Your task to perform on an android device: empty trash in google photos Image 0: 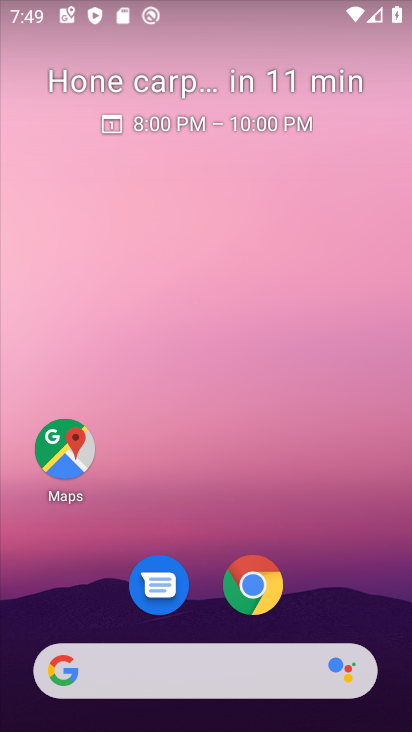
Step 0: drag from (319, 526) to (260, 1)
Your task to perform on an android device: empty trash in google photos Image 1: 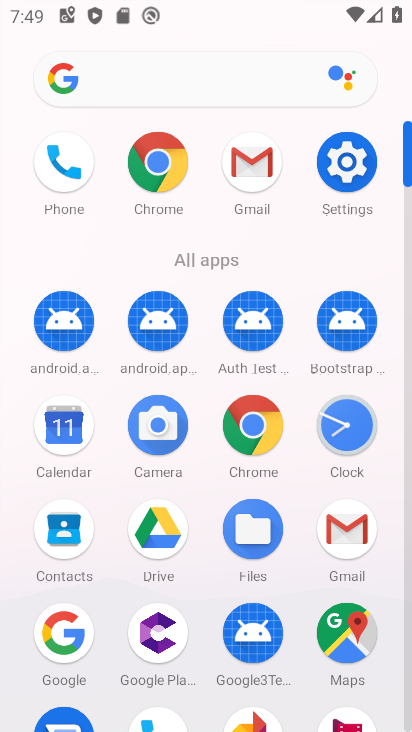
Step 1: drag from (297, 550) to (294, 218)
Your task to perform on an android device: empty trash in google photos Image 2: 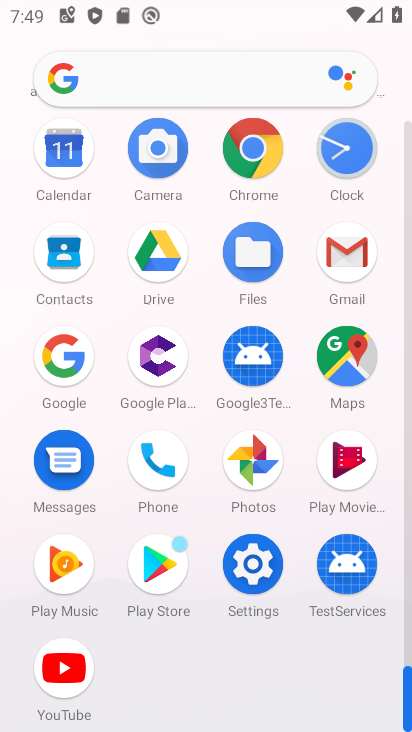
Step 2: click (255, 457)
Your task to perform on an android device: empty trash in google photos Image 3: 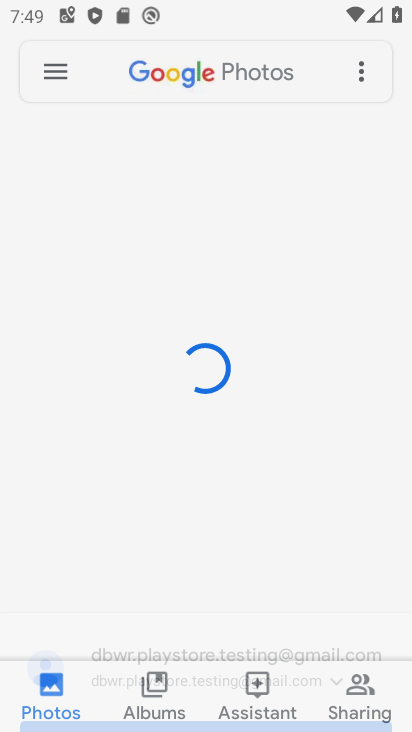
Step 3: click (63, 65)
Your task to perform on an android device: empty trash in google photos Image 4: 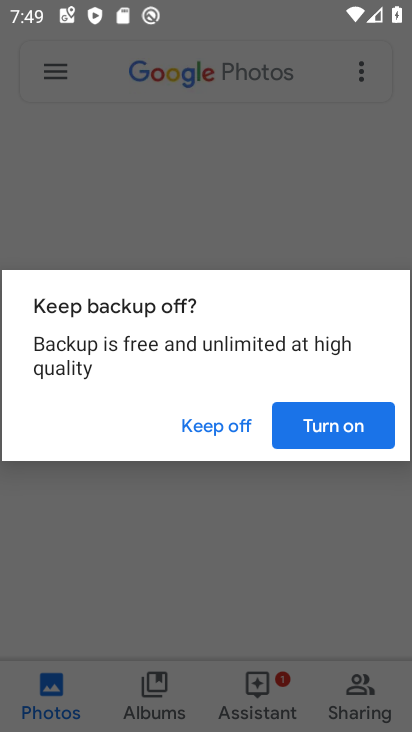
Step 4: click (306, 418)
Your task to perform on an android device: empty trash in google photos Image 5: 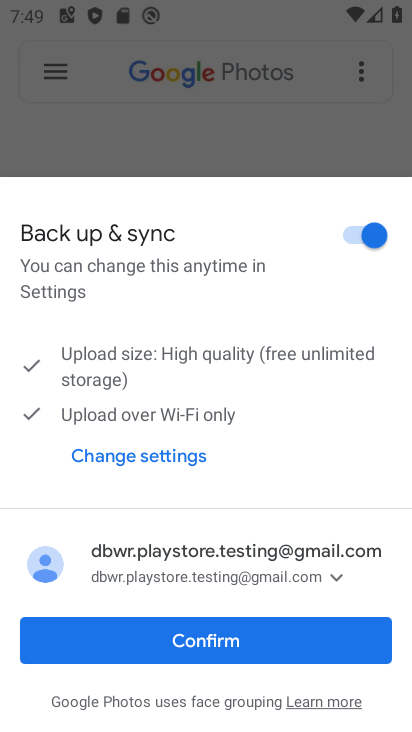
Step 5: click (57, 70)
Your task to perform on an android device: empty trash in google photos Image 6: 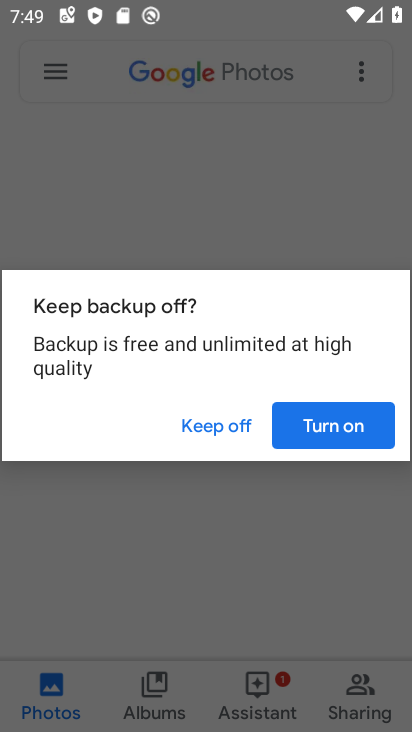
Step 6: click (291, 426)
Your task to perform on an android device: empty trash in google photos Image 7: 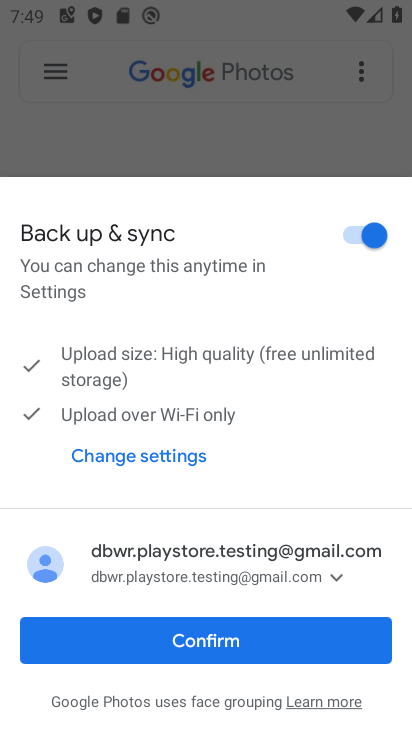
Step 7: click (274, 634)
Your task to perform on an android device: empty trash in google photos Image 8: 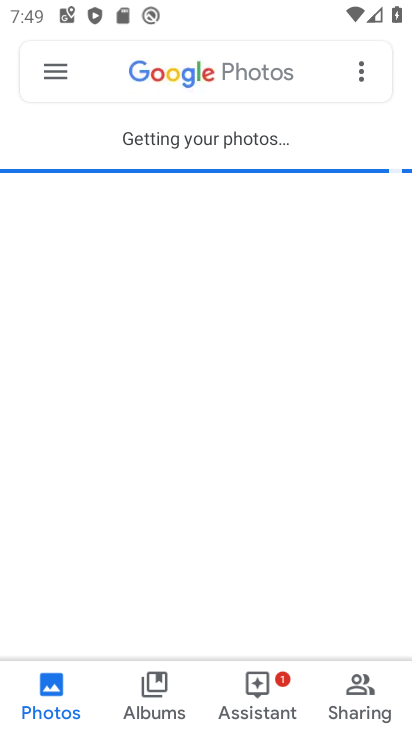
Step 8: click (55, 71)
Your task to perform on an android device: empty trash in google photos Image 9: 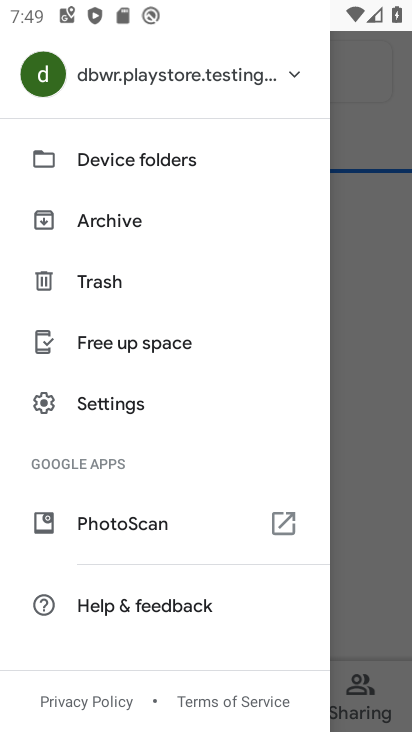
Step 9: click (106, 273)
Your task to perform on an android device: empty trash in google photos Image 10: 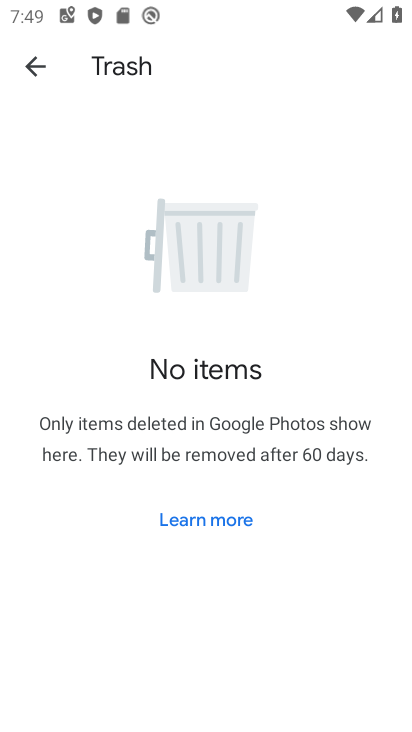
Step 10: task complete